Your task to perform on an android device: turn on the 24-hour format for clock Image 0: 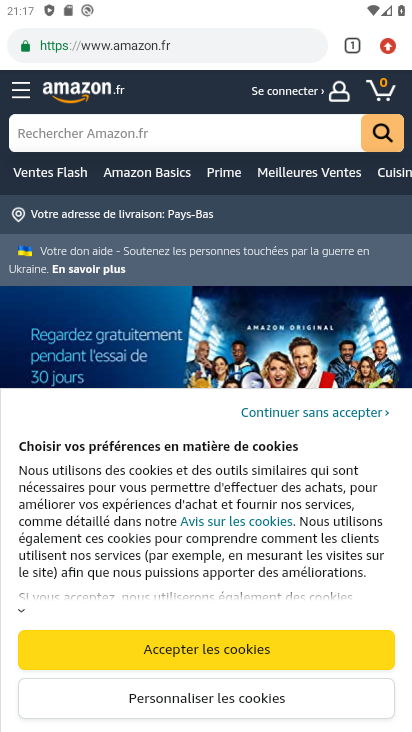
Step 0: press home button
Your task to perform on an android device: turn on the 24-hour format for clock Image 1: 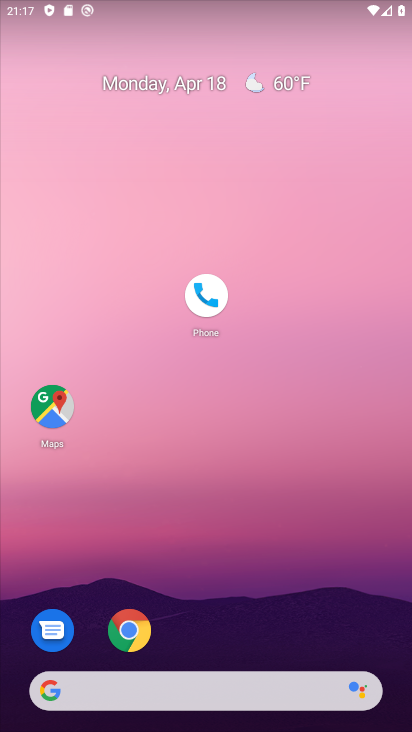
Step 1: drag from (309, 639) to (242, 143)
Your task to perform on an android device: turn on the 24-hour format for clock Image 2: 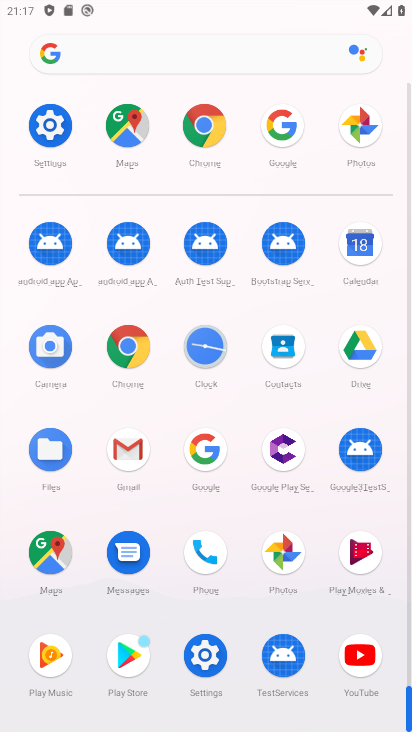
Step 2: click (211, 344)
Your task to perform on an android device: turn on the 24-hour format for clock Image 3: 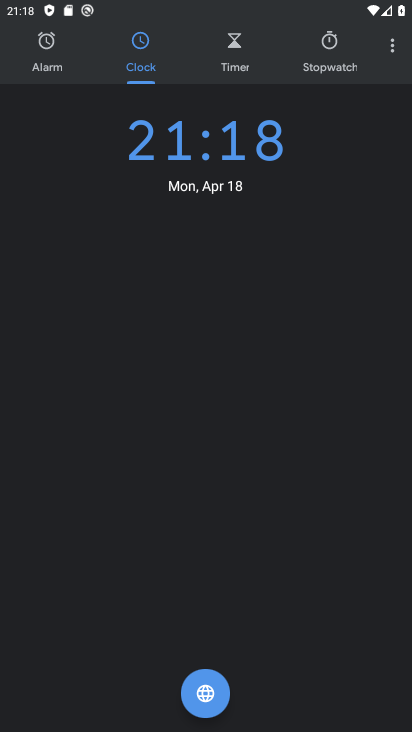
Step 3: click (396, 51)
Your task to perform on an android device: turn on the 24-hour format for clock Image 4: 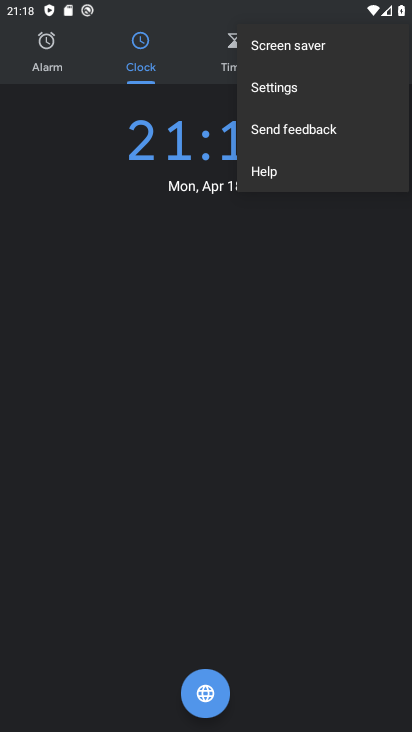
Step 4: click (293, 93)
Your task to perform on an android device: turn on the 24-hour format for clock Image 5: 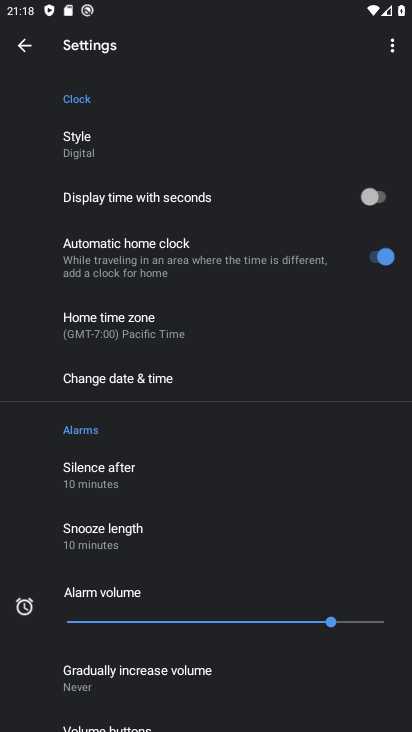
Step 5: click (138, 375)
Your task to perform on an android device: turn on the 24-hour format for clock Image 6: 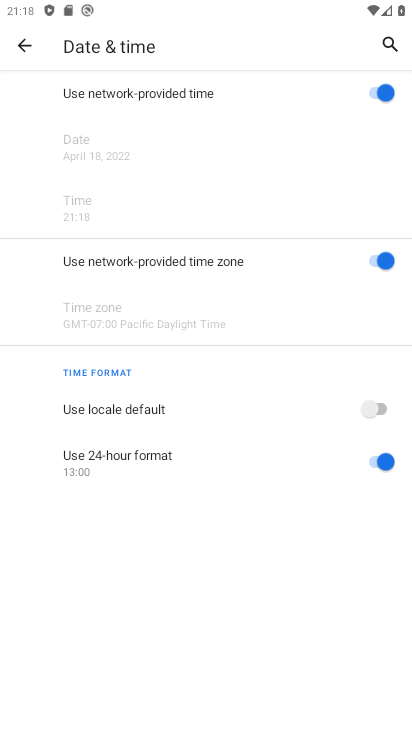
Step 6: task complete